Your task to perform on an android device: Open calendar and show me the third week of next month Image 0: 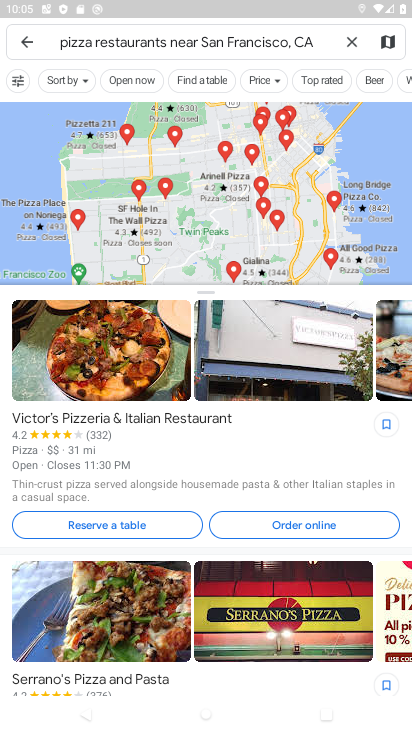
Step 0: press home button
Your task to perform on an android device: Open calendar and show me the third week of next month Image 1: 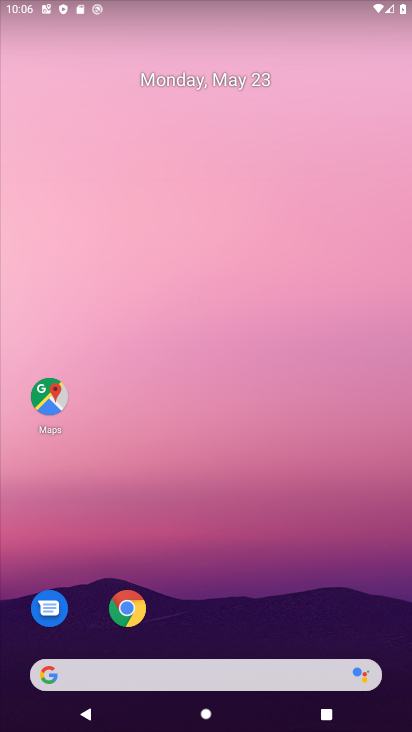
Step 1: drag from (141, 668) to (280, 180)
Your task to perform on an android device: Open calendar and show me the third week of next month Image 2: 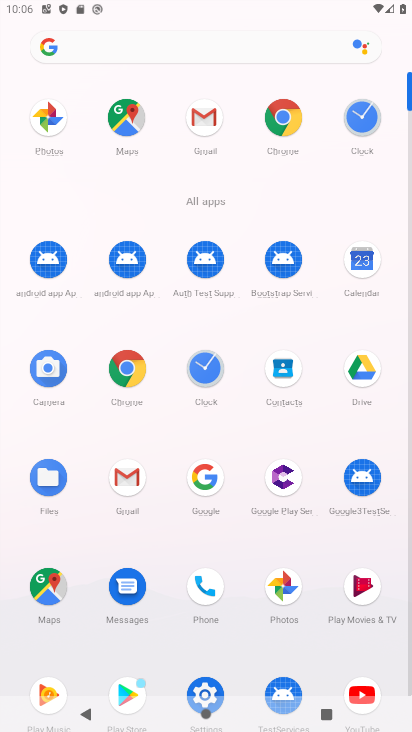
Step 2: click (374, 260)
Your task to perform on an android device: Open calendar and show me the third week of next month Image 3: 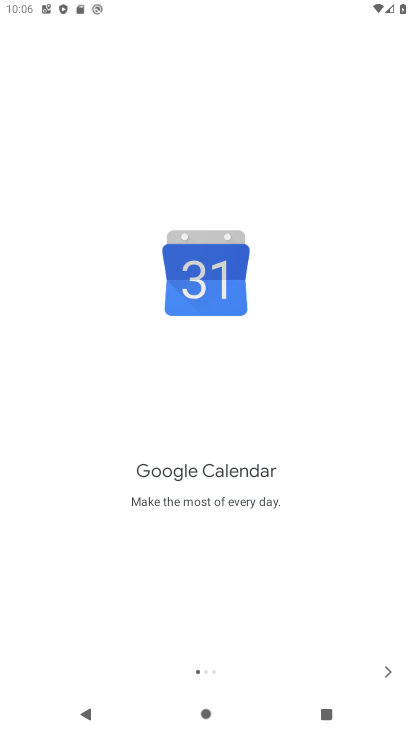
Step 3: click (394, 675)
Your task to perform on an android device: Open calendar and show me the third week of next month Image 4: 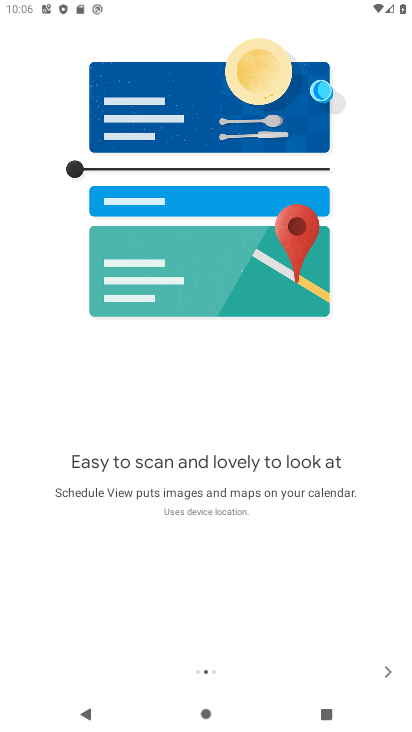
Step 4: click (394, 675)
Your task to perform on an android device: Open calendar and show me the third week of next month Image 5: 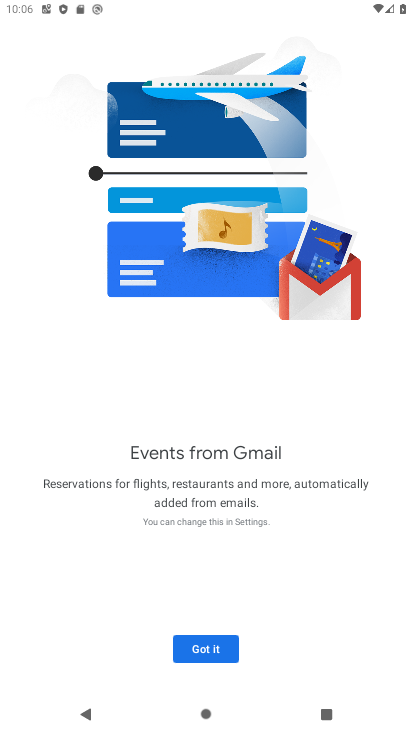
Step 5: click (204, 657)
Your task to perform on an android device: Open calendar and show me the third week of next month Image 6: 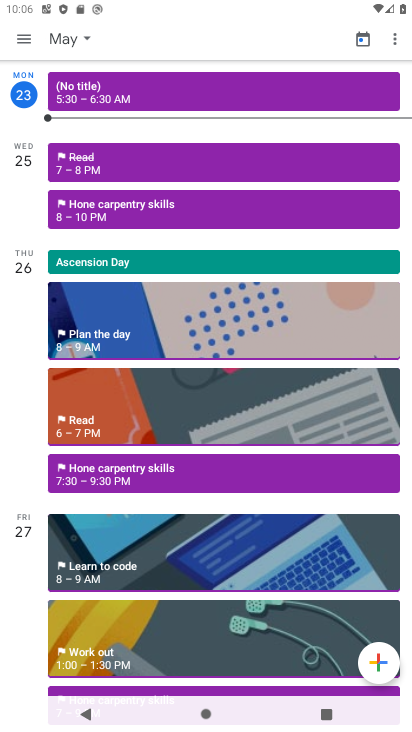
Step 6: click (74, 43)
Your task to perform on an android device: Open calendar and show me the third week of next month Image 7: 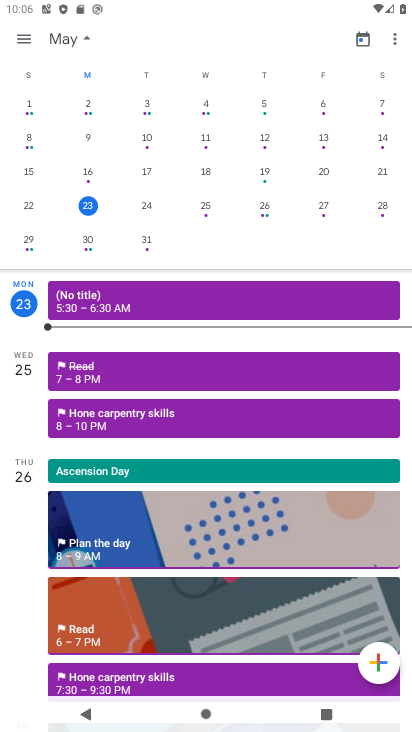
Step 7: drag from (371, 221) to (29, 190)
Your task to perform on an android device: Open calendar and show me the third week of next month Image 8: 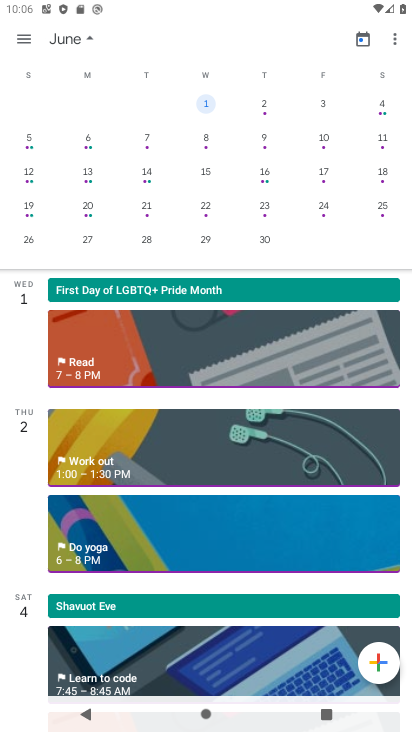
Step 8: drag from (358, 218) to (392, 212)
Your task to perform on an android device: Open calendar and show me the third week of next month Image 9: 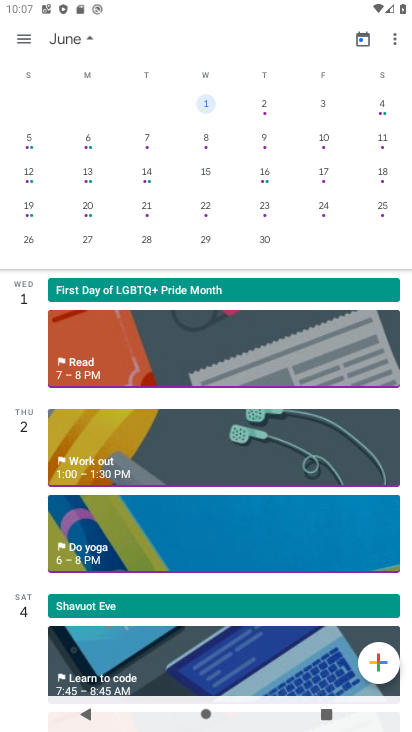
Step 9: click (33, 204)
Your task to perform on an android device: Open calendar and show me the third week of next month Image 10: 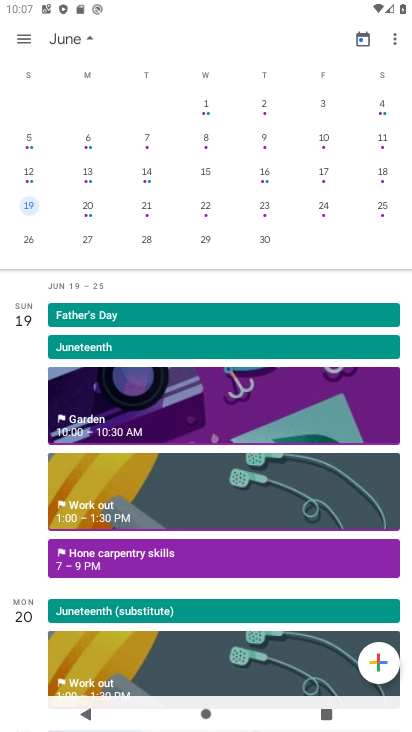
Step 10: click (10, 32)
Your task to perform on an android device: Open calendar and show me the third week of next month Image 11: 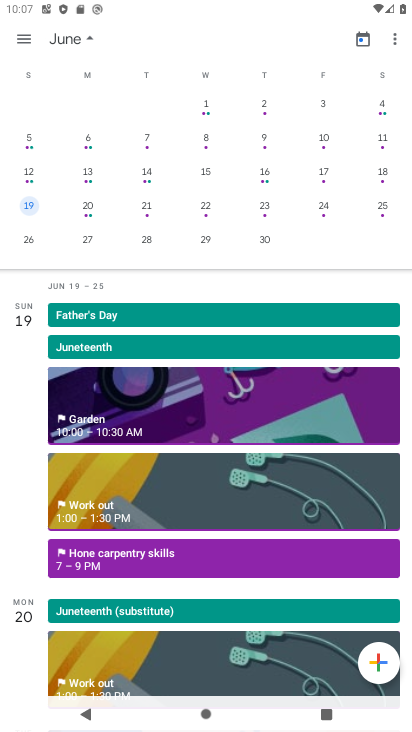
Step 11: click (21, 33)
Your task to perform on an android device: Open calendar and show me the third week of next month Image 12: 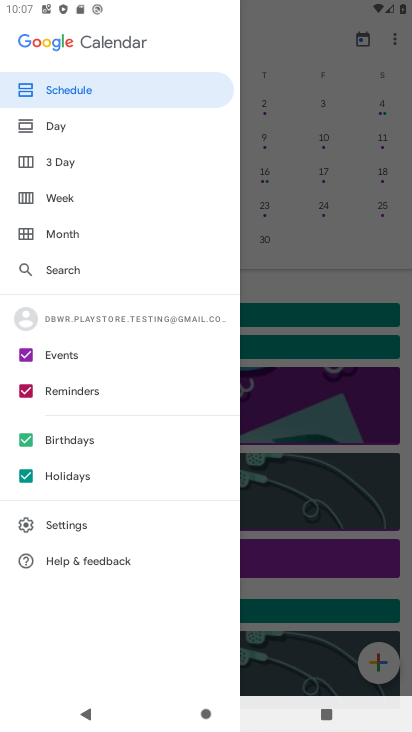
Step 12: click (85, 191)
Your task to perform on an android device: Open calendar and show me the third week of next month Image 13: 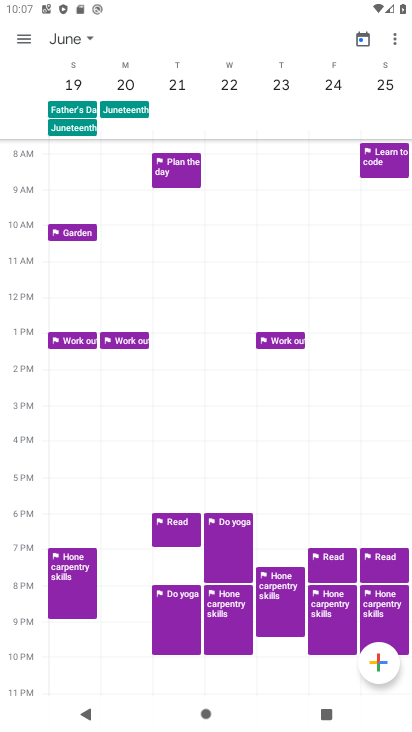
Step 13: click (29, 38)
Your task to perform on an android device: Open calendar and show me the third week of next month Image 14: 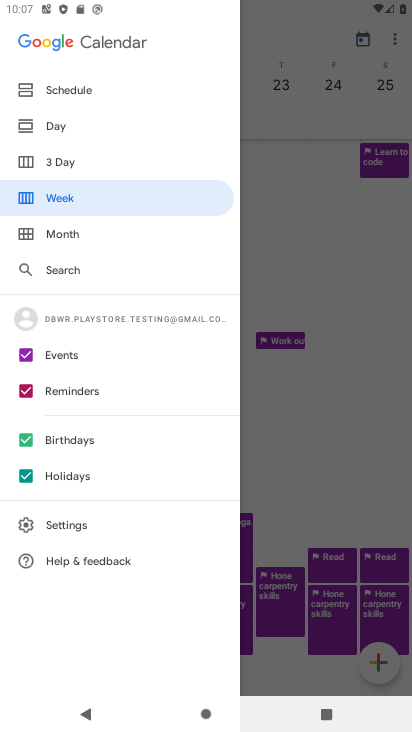
Step 14: task complete